Your task to perform on an android device: Open Google Chrome and open the bookmarks view Image 0: 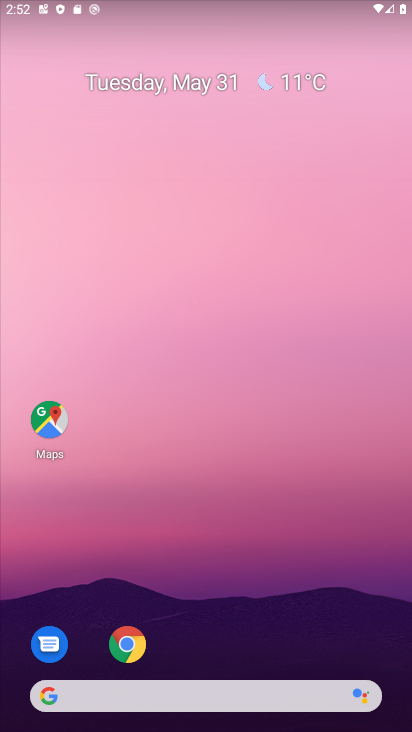
Step 0: click (128, 634)
Your task to perform on an android device: Open Google Chrome and open the bookmarks view Image 1: 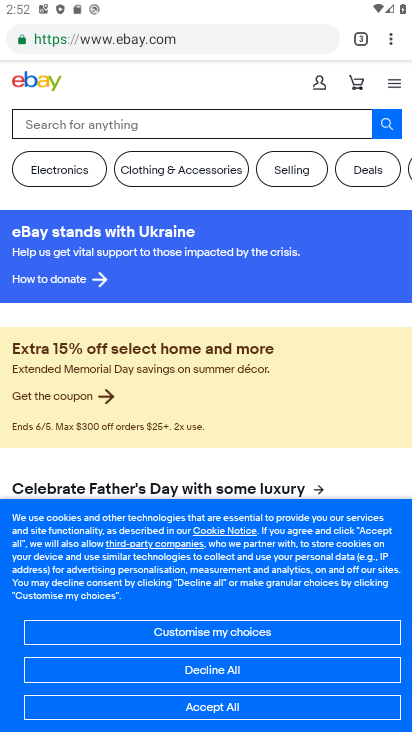
Step 1: click (396, 45)
Your task to perform on an android device: Open Google Chrome and open the bookmarks view Image 2: 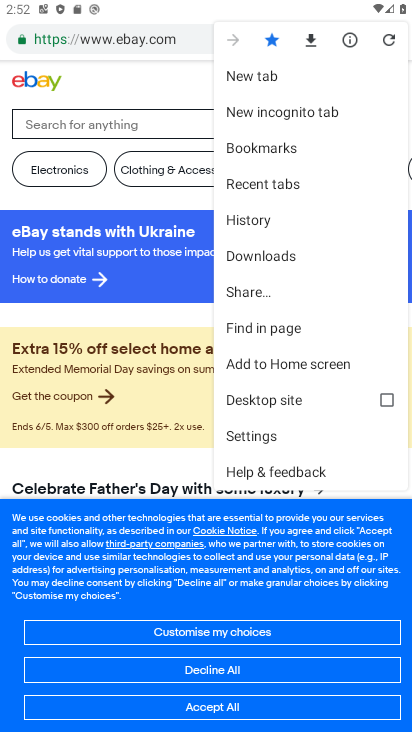
Step 2: click (256, 144)
Your task to perform on an android device: Open Google Chrome and open the bookmarks view Image 3: 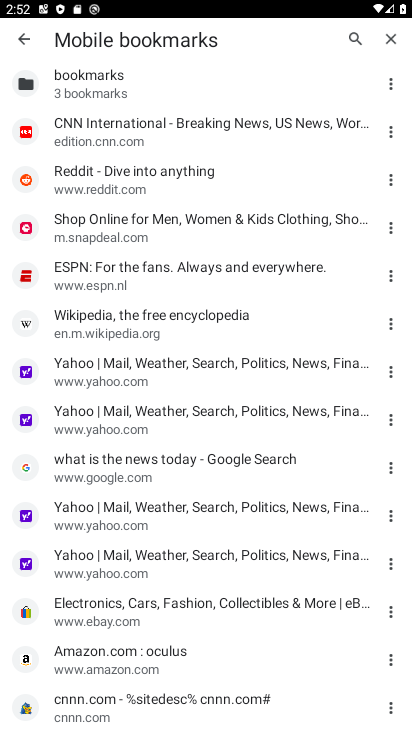
Step 3: task complete